Your task to perform on an android device: turn off sleep mode Image 0: 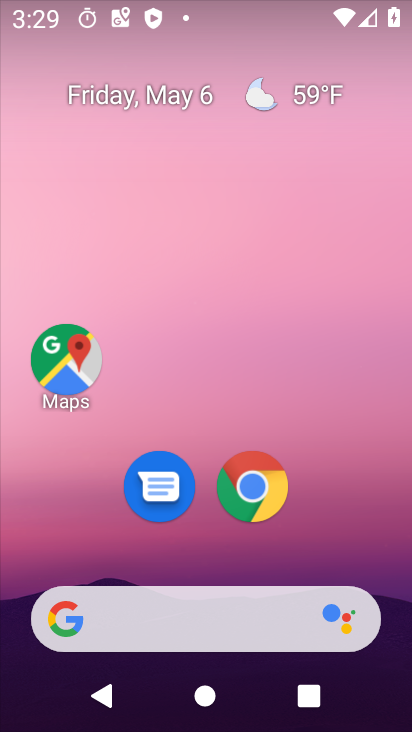
Step 0: drag from (341, 540) to (236, 106)
Your task to perform on an android device: turn off sleep mode Image 1: 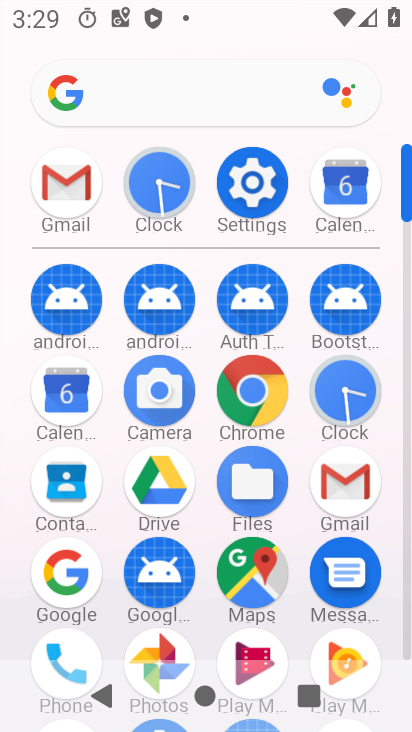
Step 1: click (261, 182)
Your task to perform on an android device: turn off sleep mode Image 2: 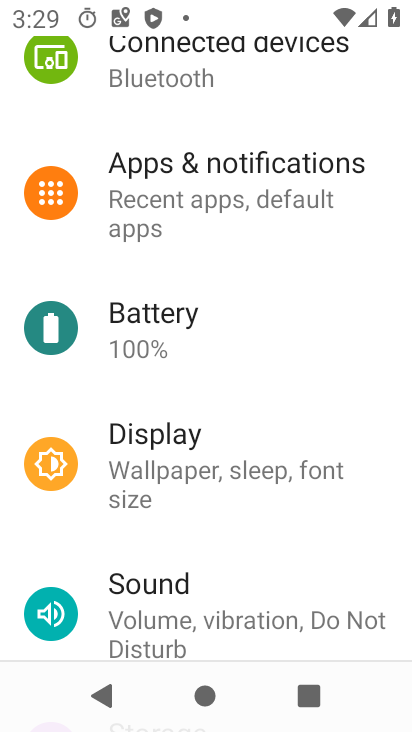
Step 2: click (164, 459)
Your task to perform on an android device: turn off sleep mode Image 3: 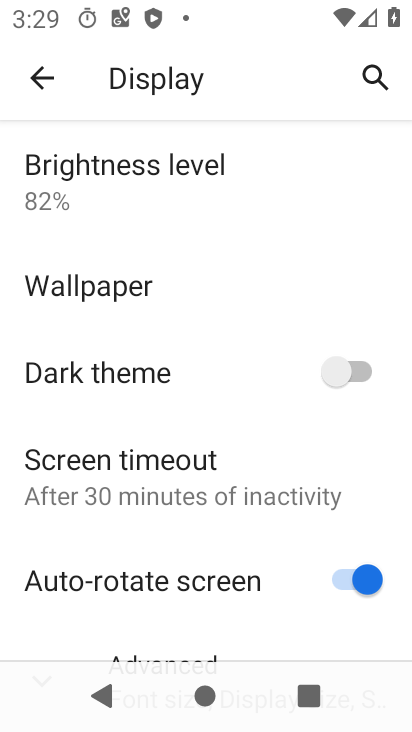
Step 3: drag from (298, 513) to (174, 170)
Your task to perform on an android device: turn off sleep mode Image 4: 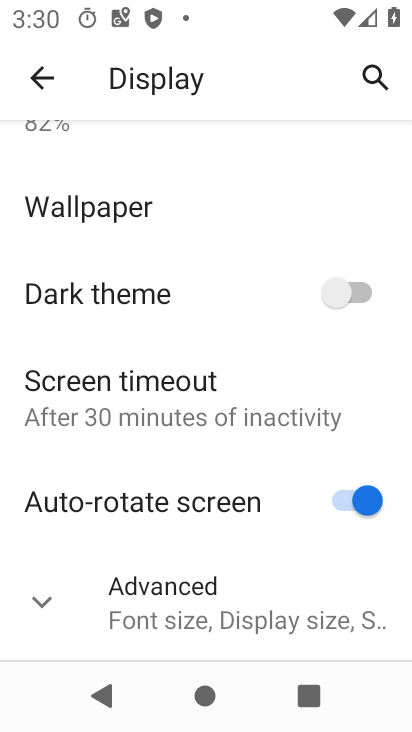
Step 4: drag from (199, 516) to (182, 173)
Your task to perform on an android device: turn off sleep mode Image 5: 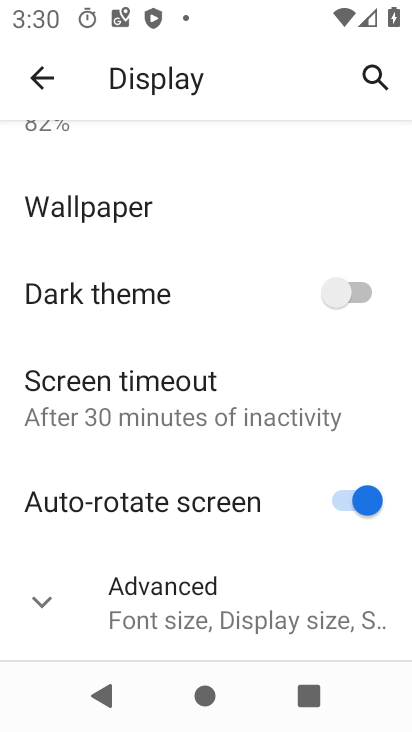
Step 5: drag from (193, 229) to (214, 594)
Your task to perform on an android device: turn off sleep mode Image 6: 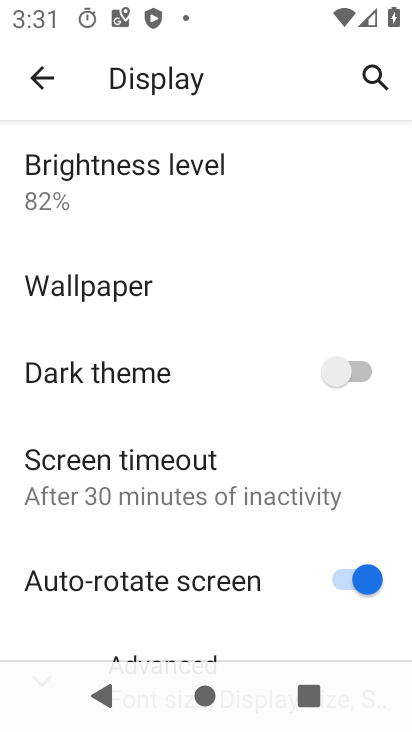
Step 6: drag from (182, 472) to (176, 202)
Your task to perform on an android device: turn off sleep mode Image 7: 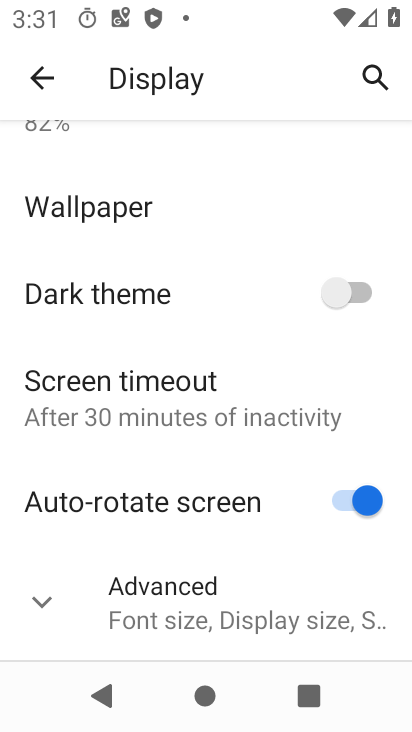
Step 7: click (45, 601)
Your task to perform on an android device: turn off sleep mode Image 8: 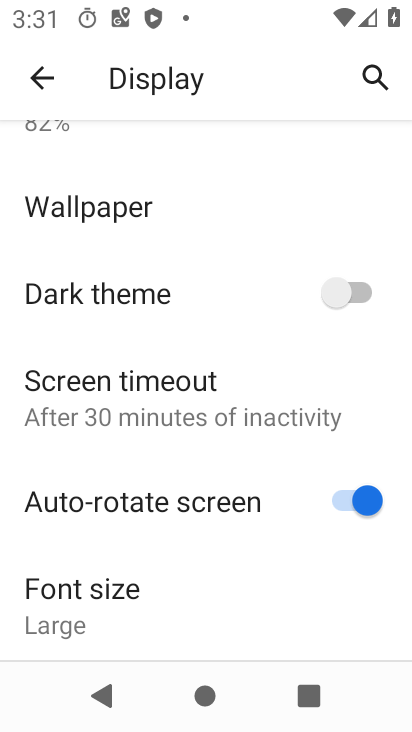
Step 8: click (32, 83)
Your task to perform on an android device: turn off sleep mode Image 9: 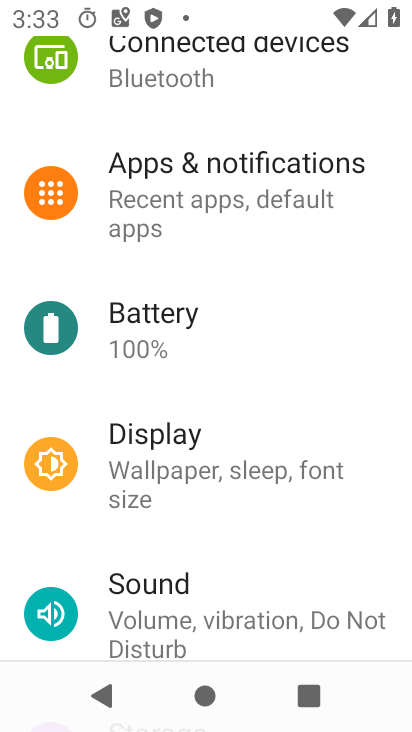
Step 9: task complete